Your task to perform on an android device: turn off location history Image 0: 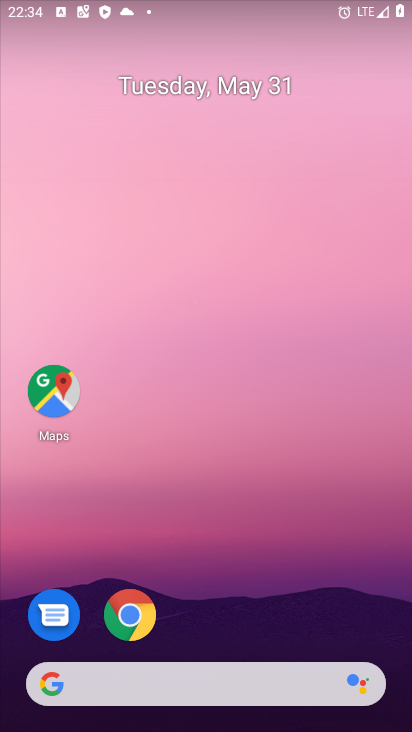
Step 0: click (51, 386)
Your task to perform on an android device: turn off location history Image 1: 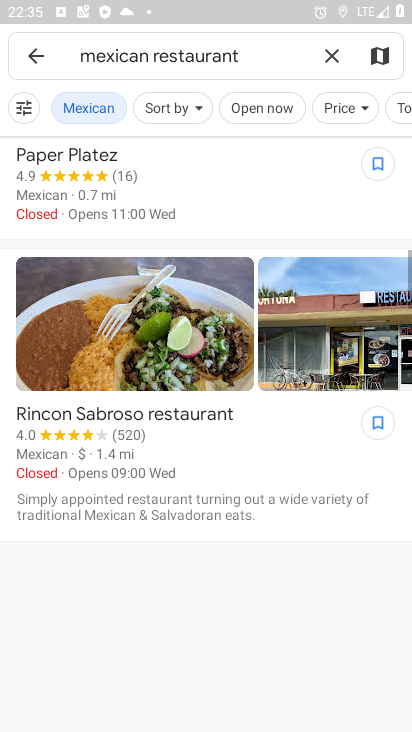
Step 1: click (330, 50)
Your task to perform on an android device: turn off location history Image 2: 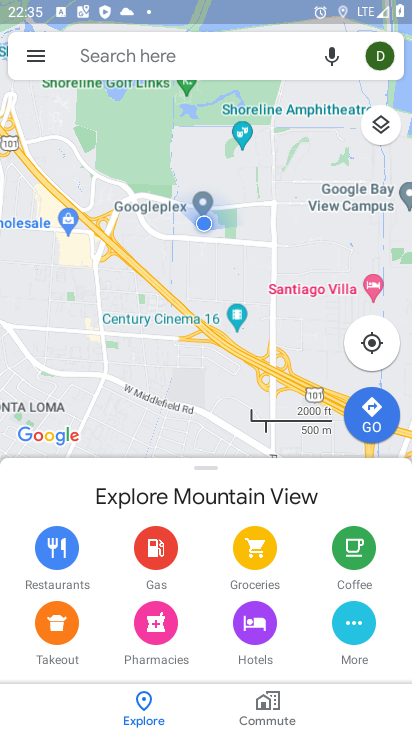
Step 2: click (33, 53)
Your task to perform on an android device: turn off location history Image 3: 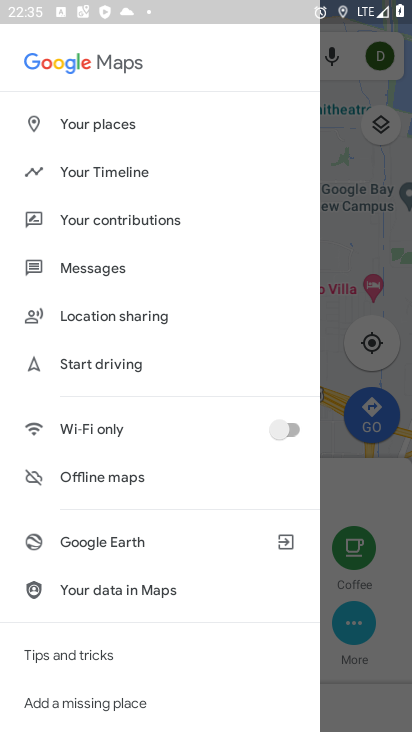
Step 3: drag from (177, 541) to (179, 228)
Your task to perform on an android device: turn off location history Image 4: 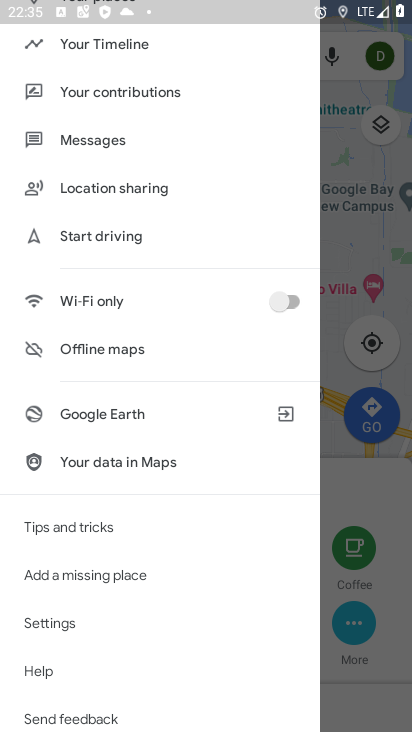
Step 4: click (53, 622)
Your task to perform on an android device: turn off location history Image 5: 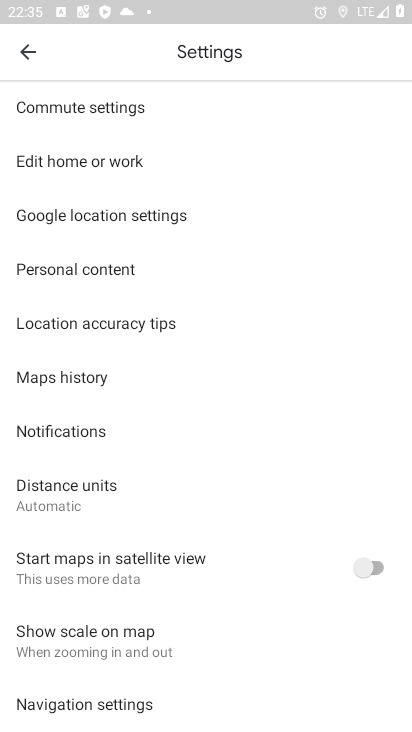
Step 5: click (95, 270)
Your task to perform on an android device: turn off location history Image 6: 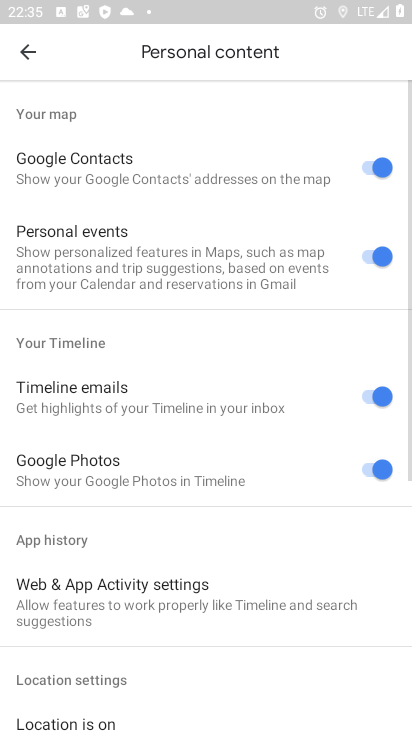
Step 6: task complete